Your task to perform on an android device: change notification settings in the gmail app Image 0: 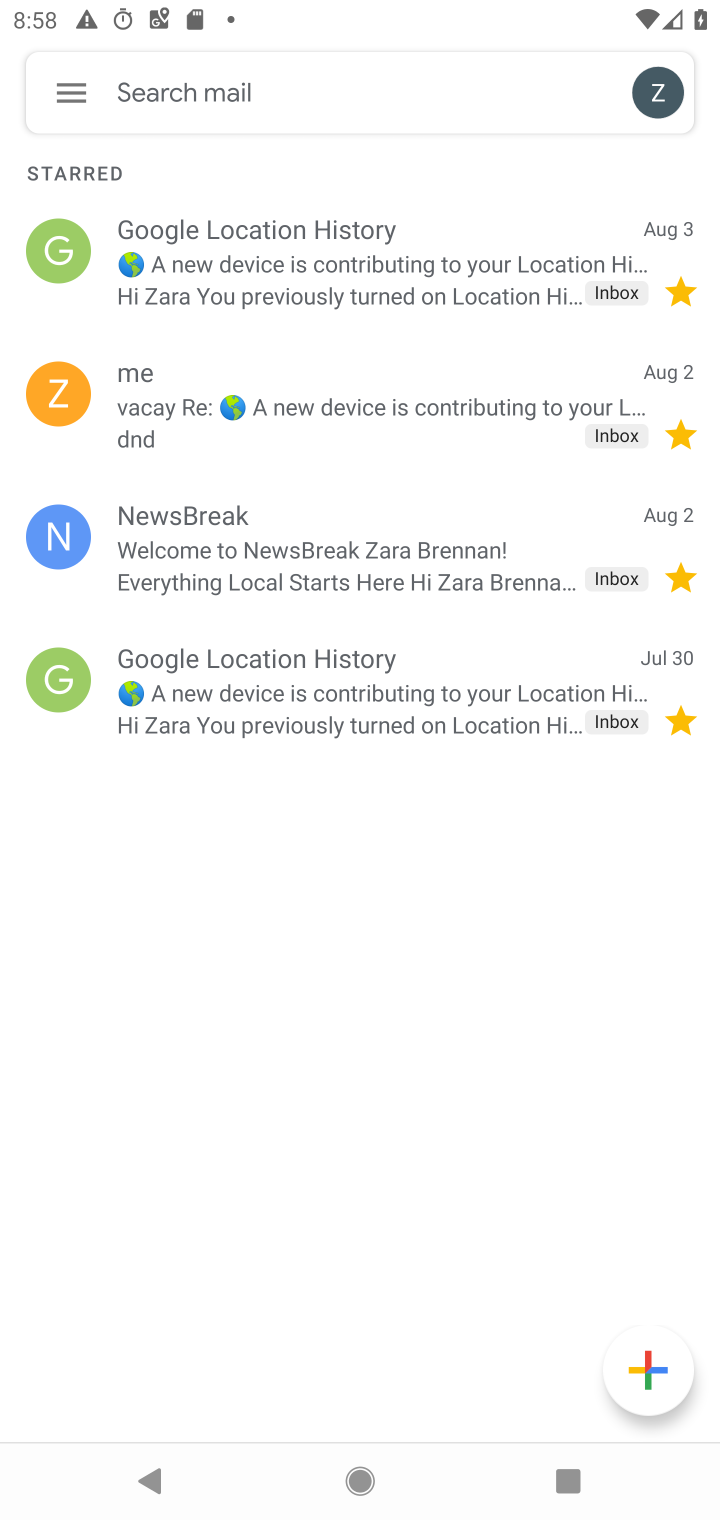
Step 0: press home button
Your task to perform on an android device: change notification settings in the gmail app Image 1: 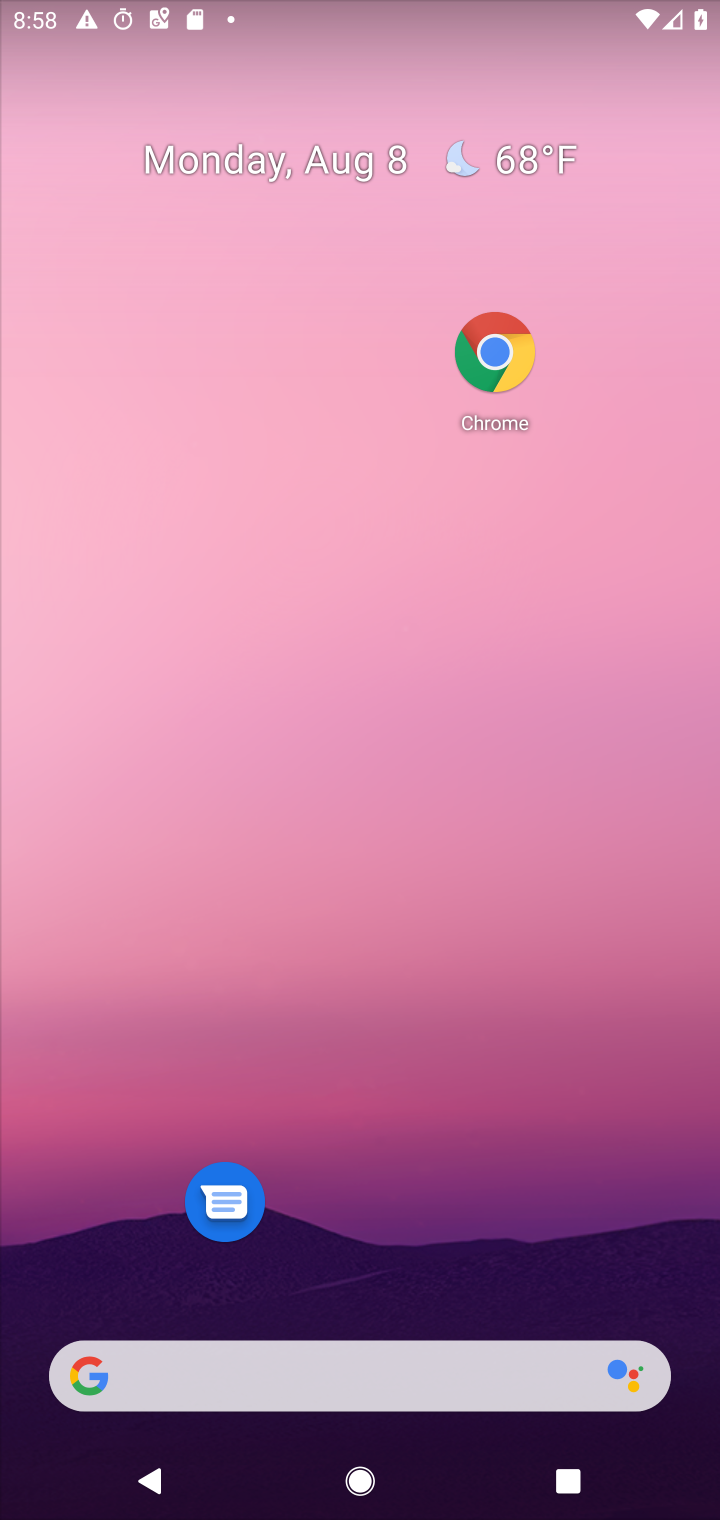
Step 1: drag from (387, 1162) to (488, 247)
Your task to perform on an android device: change notification settings in the gmail app Image 2: 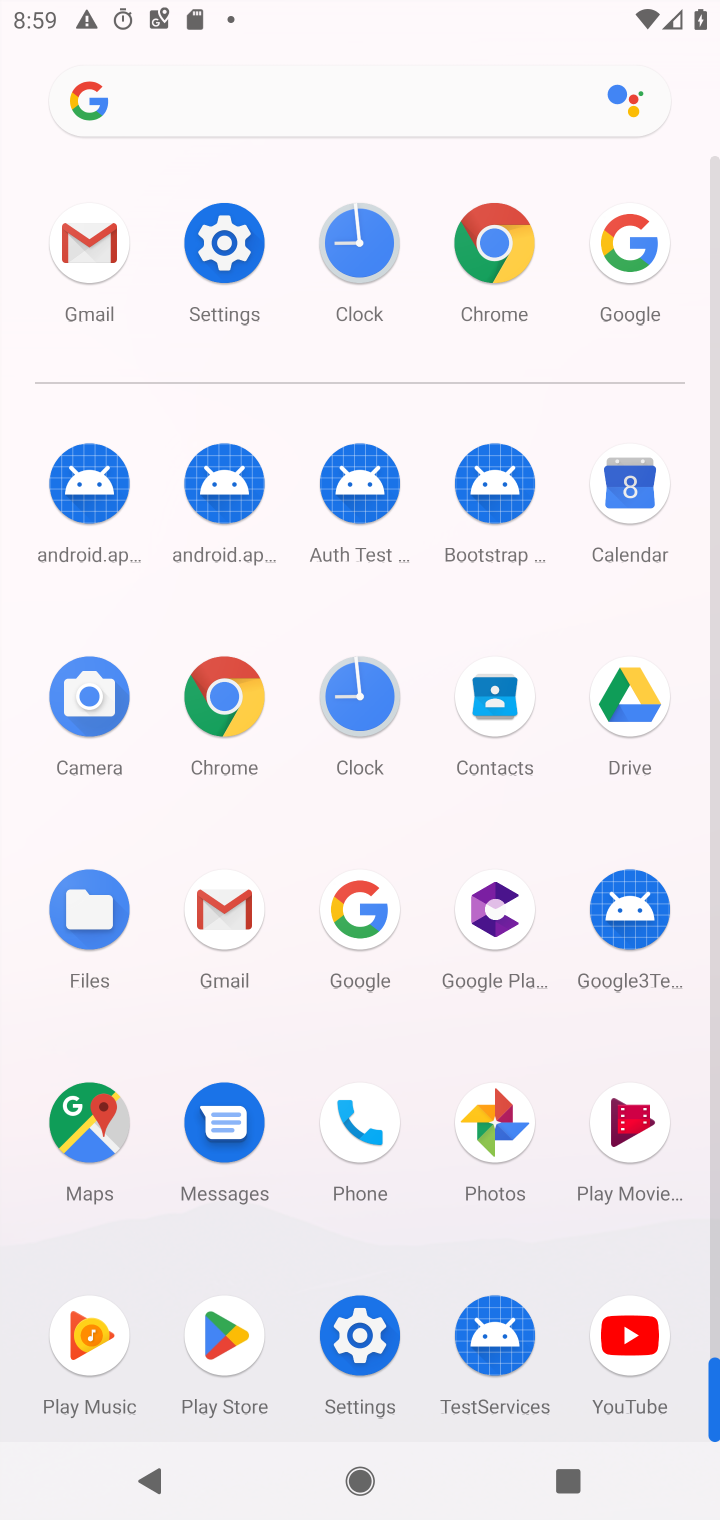
Step 2: click (239, 925)
Your task to perform on an android device: change notification settings in the gmail app Image 3: 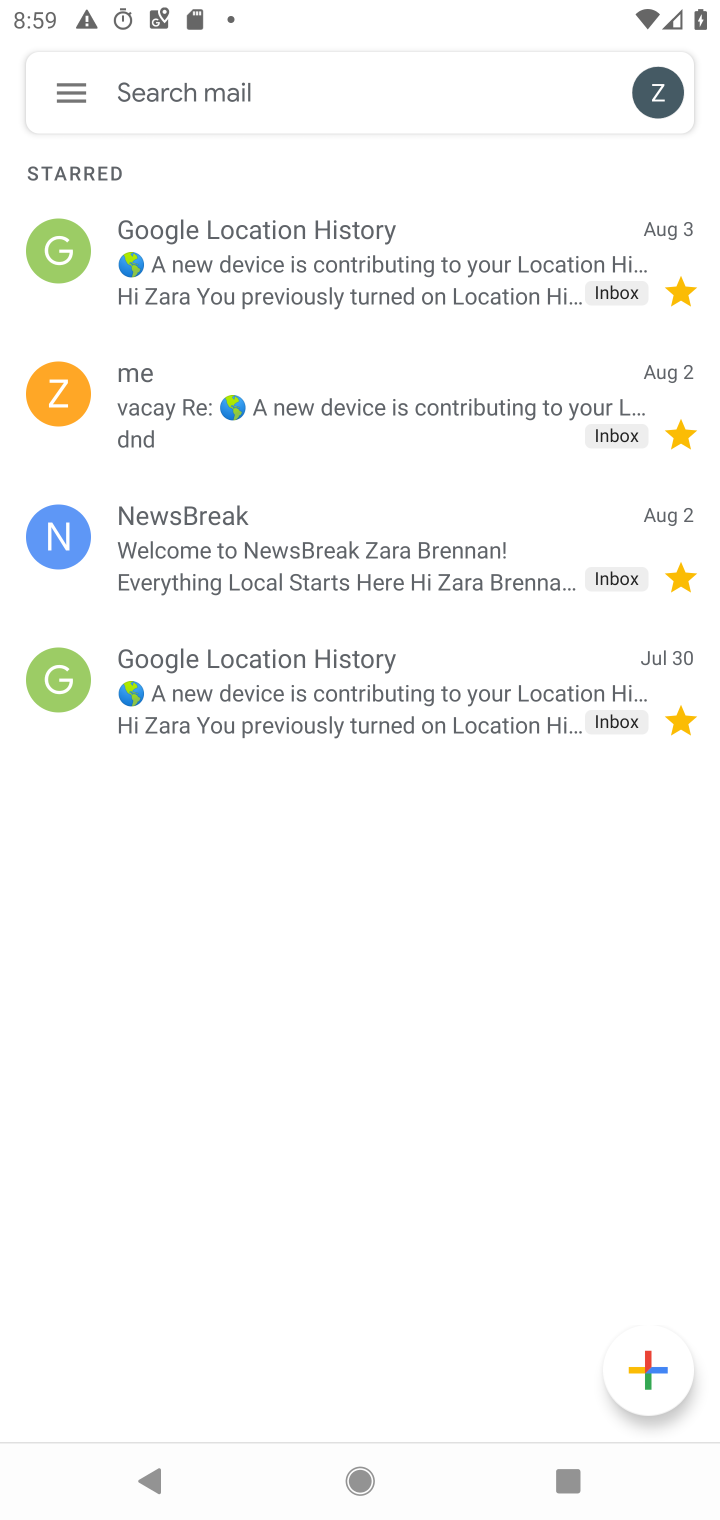
Step 3: click (79, 119)
Your task to perform on an android device: change notification settings in the gmail app Image 4: 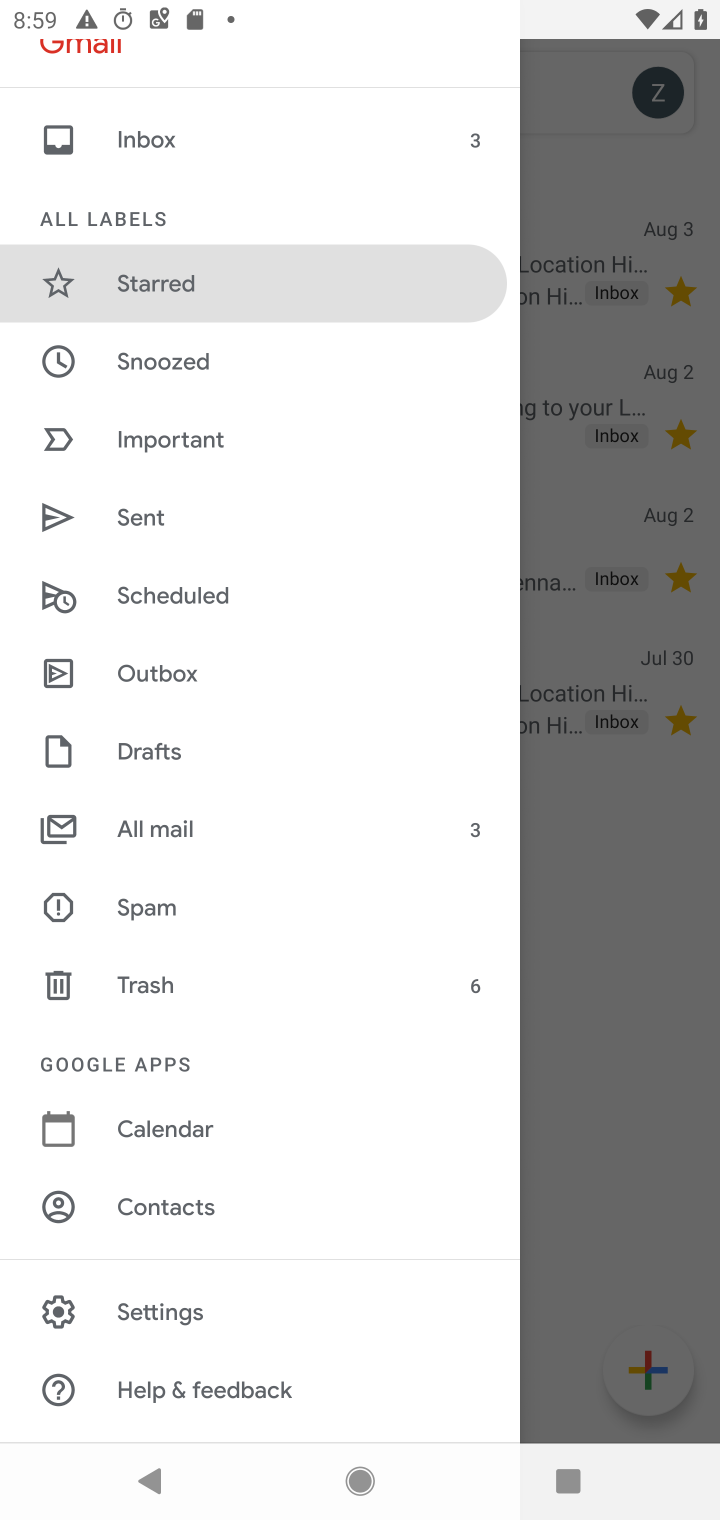
Step 4: click (146, 1294)
Your task to perform on an android device: change notification settings in the gmail app Image 5: 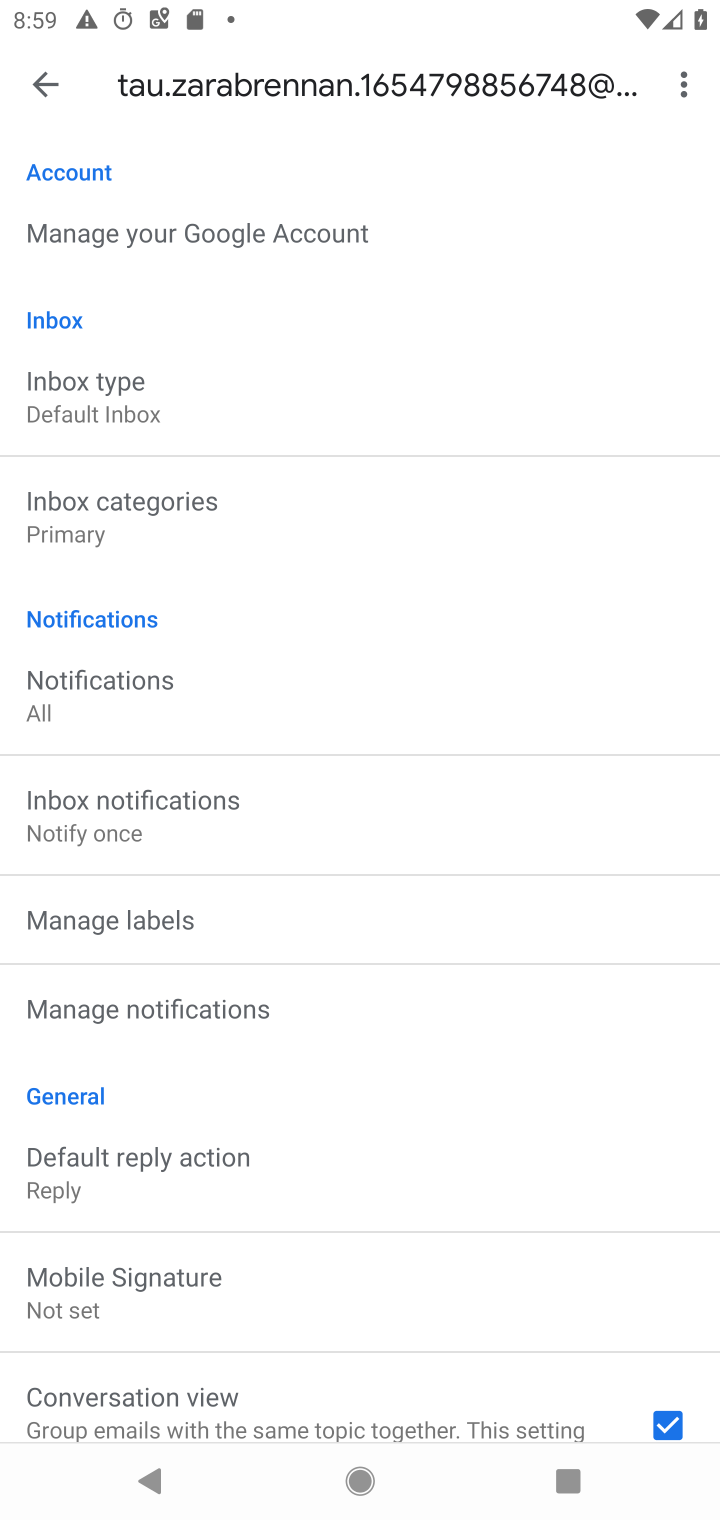
Step 5: drag from (281, 1302) to (300, 498)
Your task to perform on an android device: change notification settings in the gmail app Image 6: 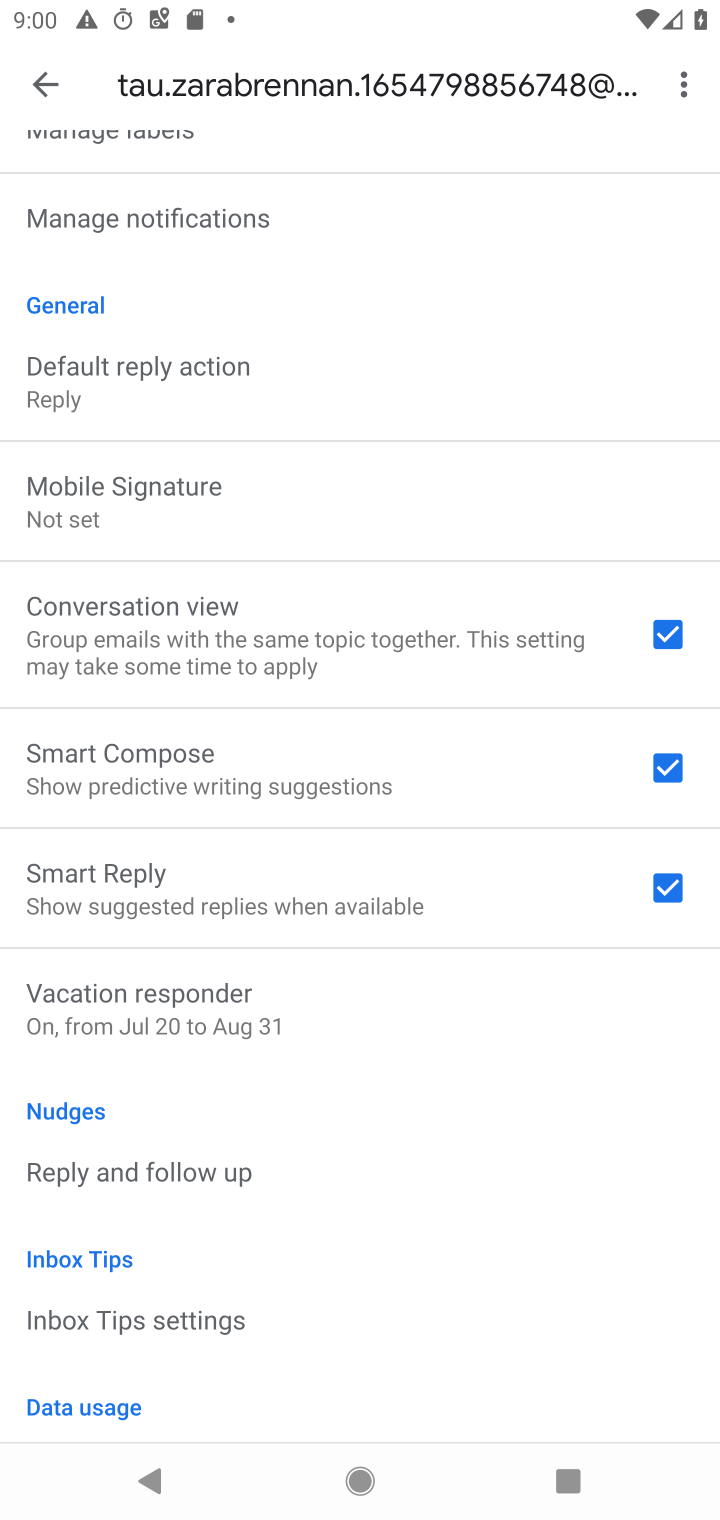
Step 6: click (47, 83)
Your task to perform on an android device: change notification settings in the gmail app Image 7: 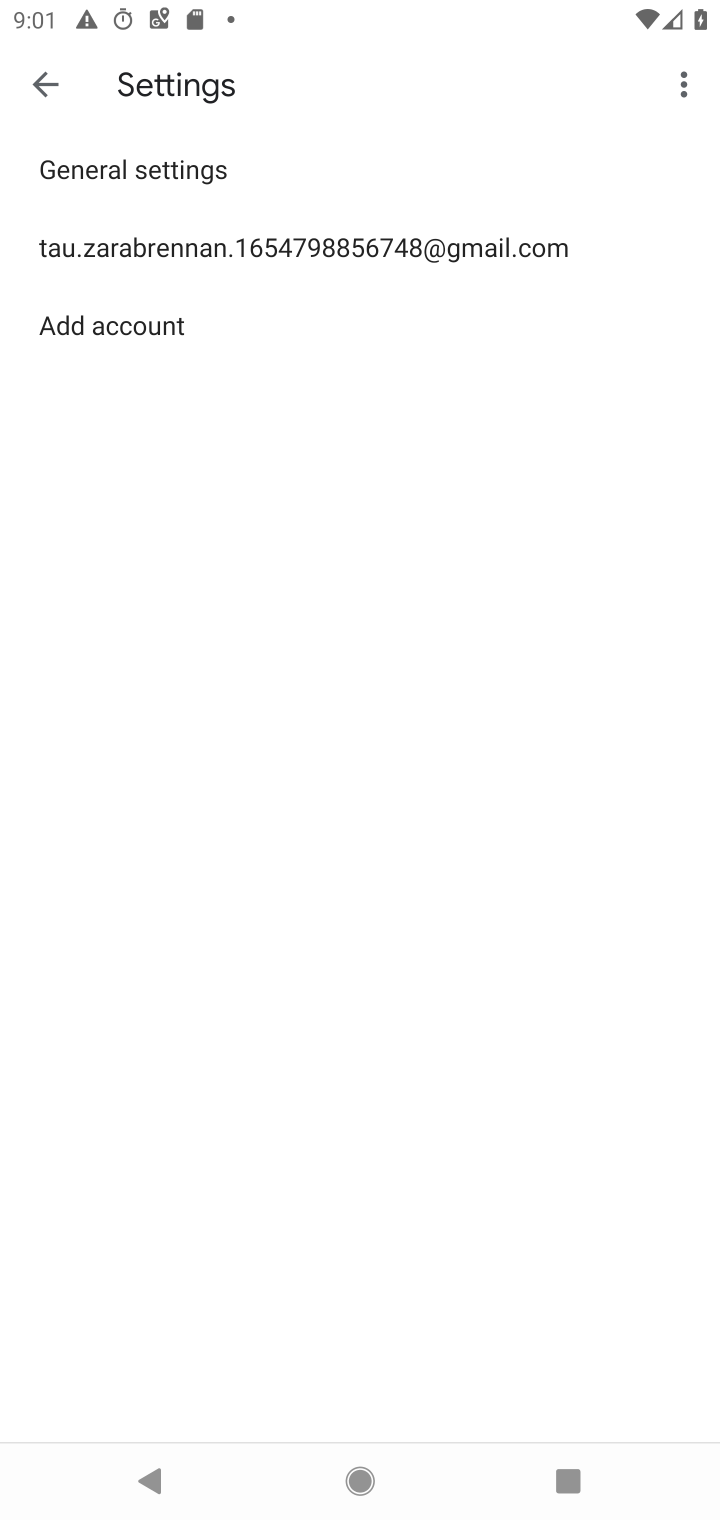
Step 7: click (244, 186)
Your task to perform on an android device: change notification settings in the gmail app Image 8: 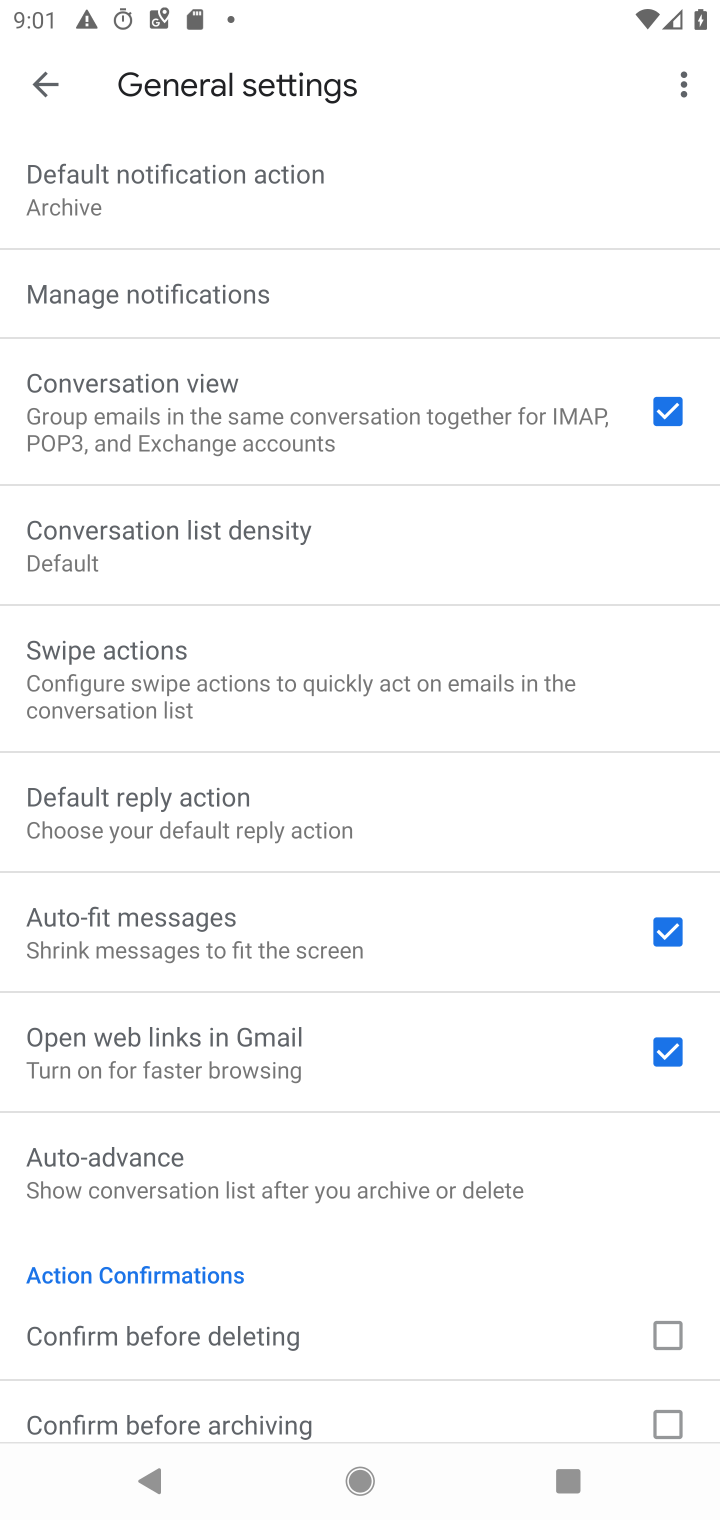
Step 8: click (202, 298)
Your task to perform on an android device: change notification settings in the gmail app Image 9: 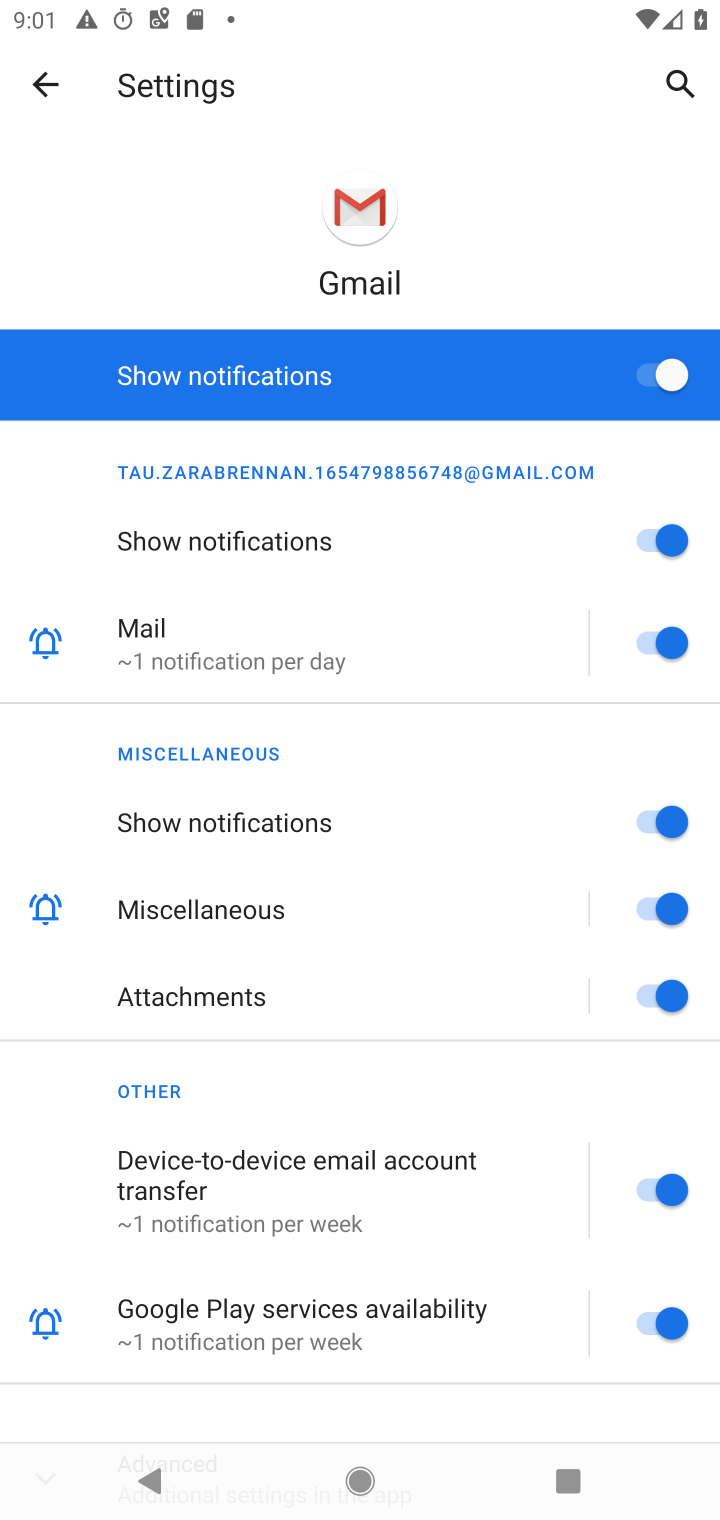
Step 9: click (438, 374)
Your task to perform on an android device: change notification settings in the gmail app Image 10: 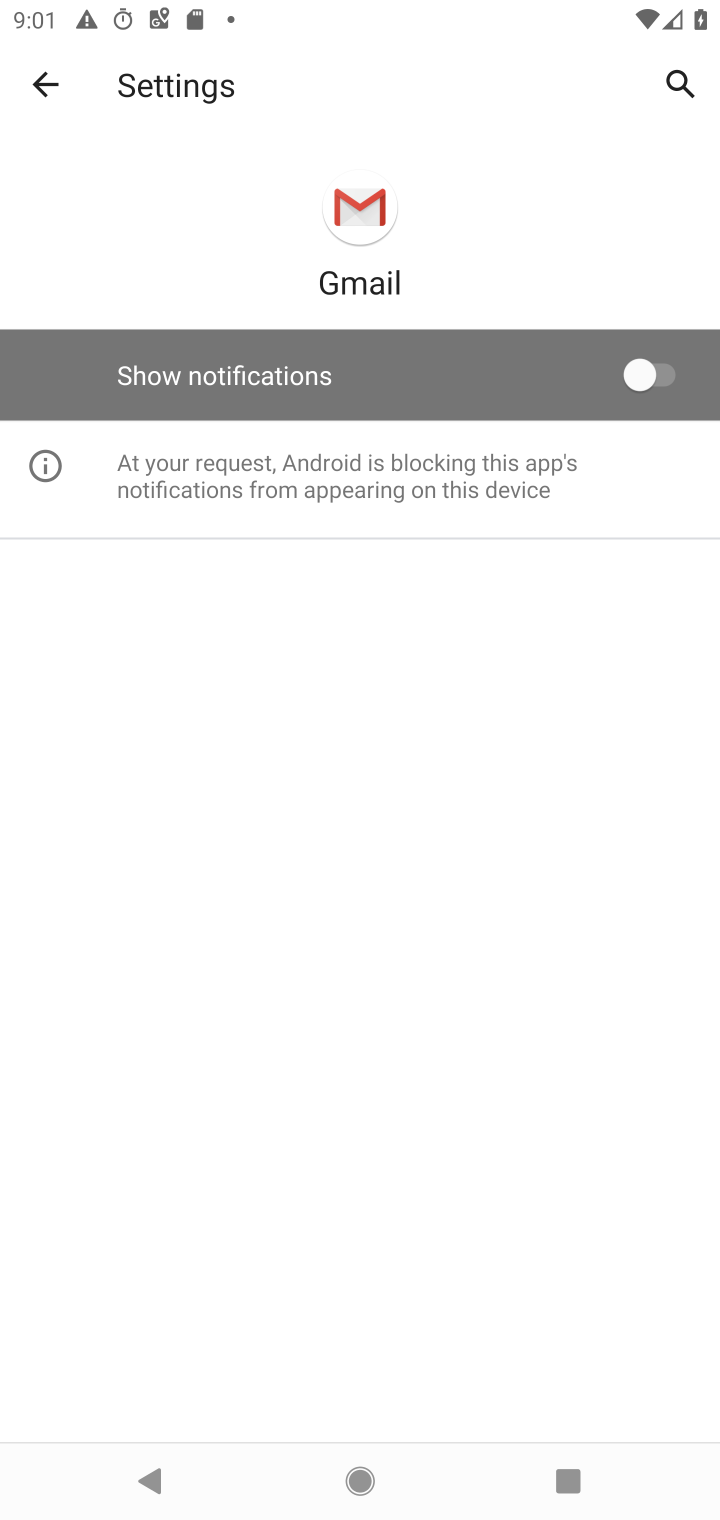
Step 10: task complete